Your task to perform on an android device: remove spam from my inbox in the gmail app Image 0: 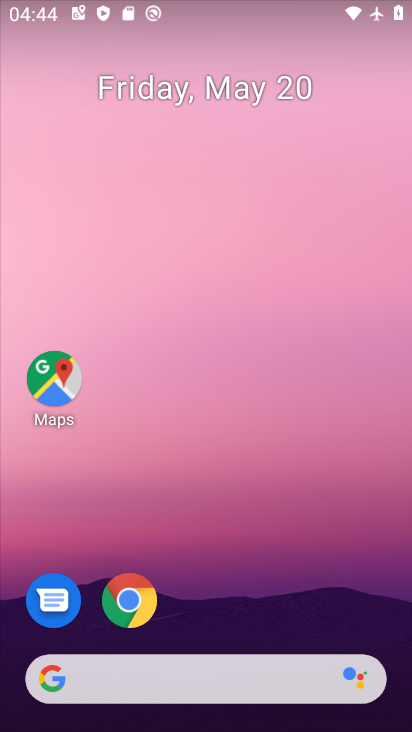
Step 0: drag from (266, 534) to (339, 16)
Your task to perform on an android device: remove spam from my inbox in the gmail app Image 1: 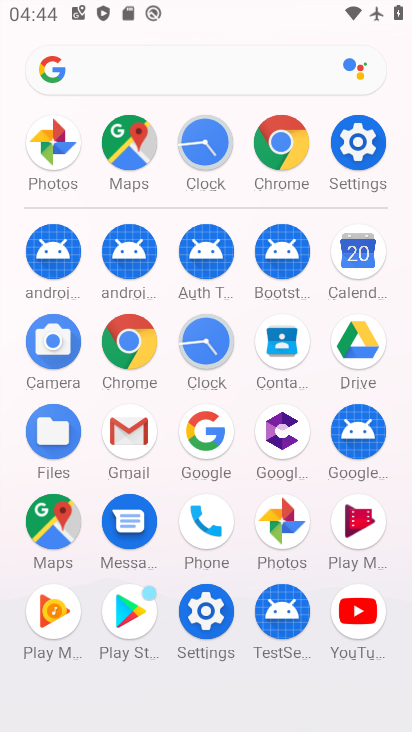
Step 1: drag from (15, 581) to (23, 227)
Your task to perform on an android device: remove spam from my inbox in the gmail app Image 2: 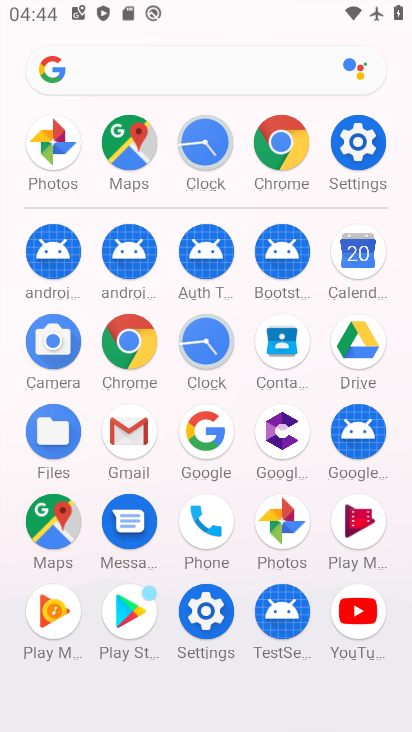
Step 2: drag from (12, 604) to (21, 370)
Your task to perform on an android device: remove spam from my inbox in the gmail app Image 3: 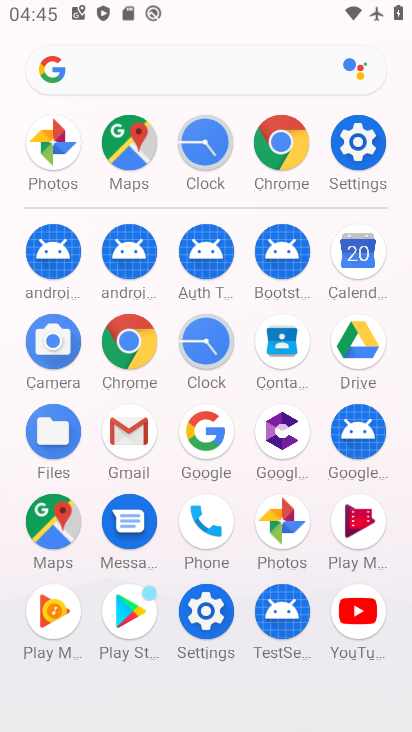
Step 3: click (130, 426)
Your task to perform on an android device: remove spam from my inbox in the gmail app Image 4: 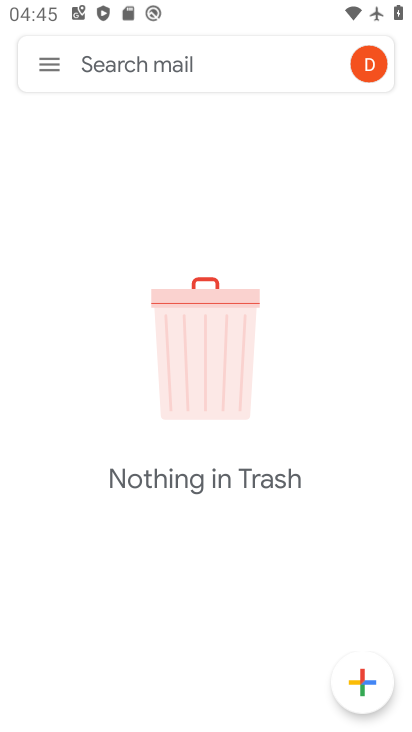
Step 4: click (57, 68)
Your task to perform on an android device: remove spam from my inbox in the gmail app Image 5: 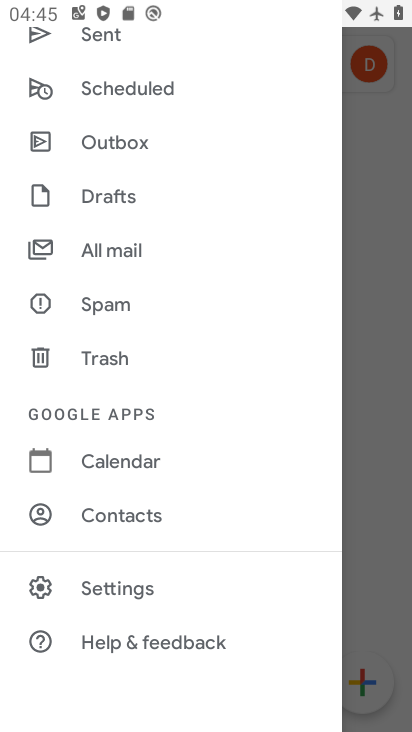
Step 5: drag from (173, 518) to (193, 113)
Your task to perform on an android device: remove spam from my inbox in the gmail app Image 6: 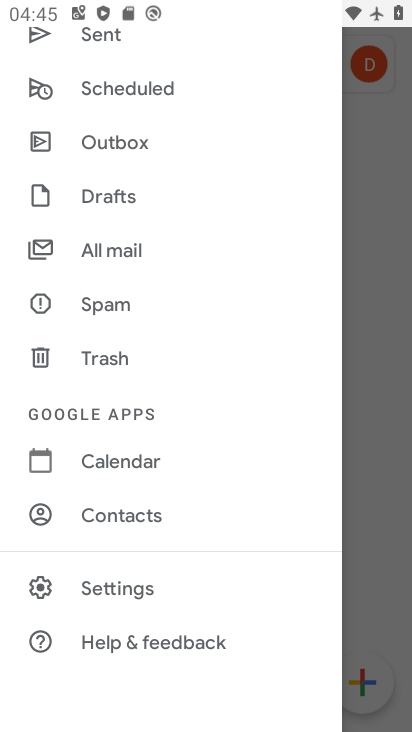
Step 6: click (127, 595)
Your task to perform on an android device: remove spam from my inbox in the gmail app Image 7: 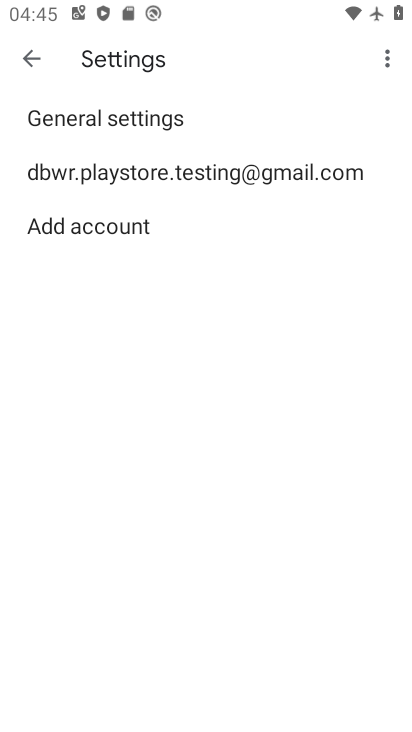
Step 7: click (31, 59)
Your task to perform on an android device: remove spam from my inbox in the gmail app Image 8: 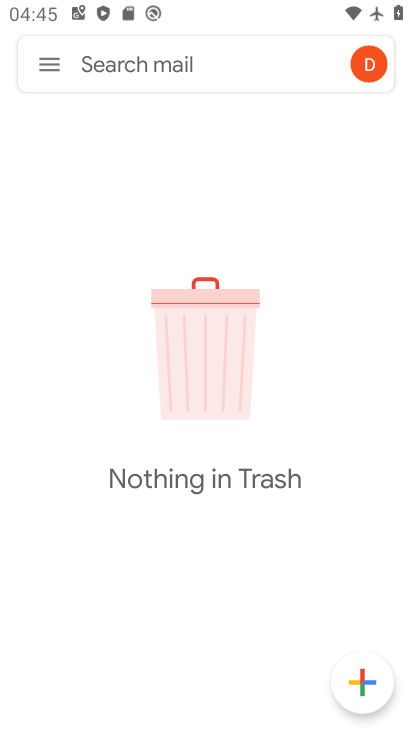
Step 8: click (50, 62)
Your task to perform on an android device: remove spam from my inbox in the gmail app Image 9: 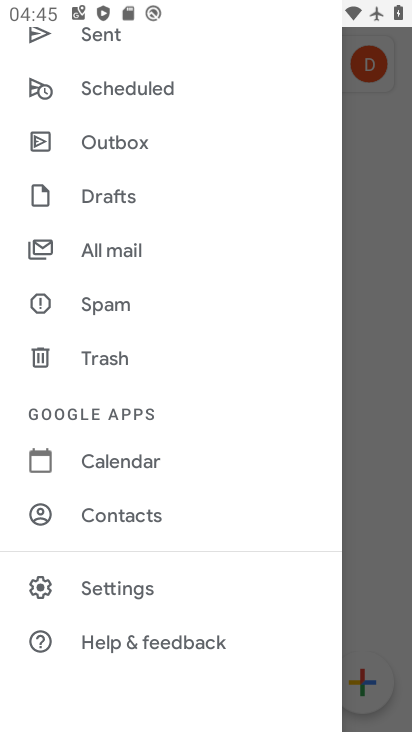
Step 9: click (123, 303)
Your task to perform on an android device: remove spam from my inbox in the gmail app Image 10: 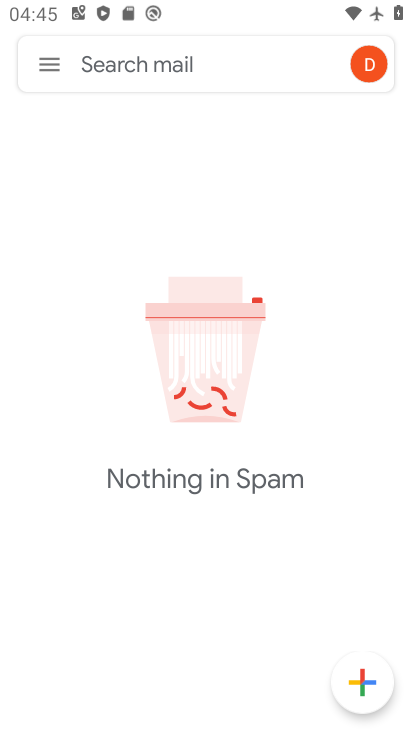
Step 10: task complete